Your task to perform on an android device: Open the phone app and click the voicemail tab. Image 0: 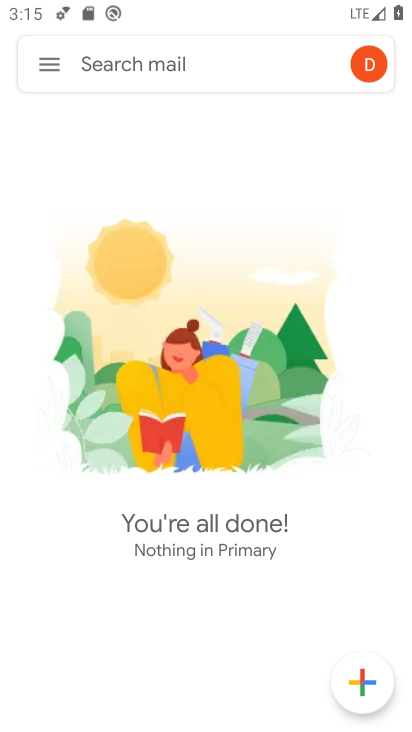
Step 0: press home button
Your task to perform on an android device: Open the phone app and click the voicemail tab. Image 1: 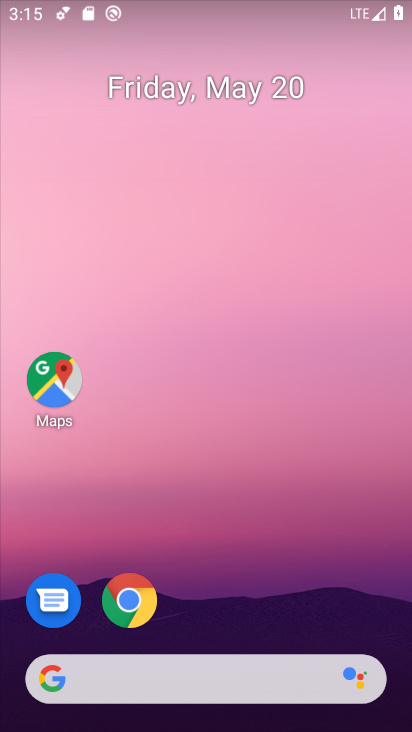
Step 1: drag from (334, 606) to (313, 320)
Your task to perform on an android device: Open the phone app and click the voicemail tab. Image 2: 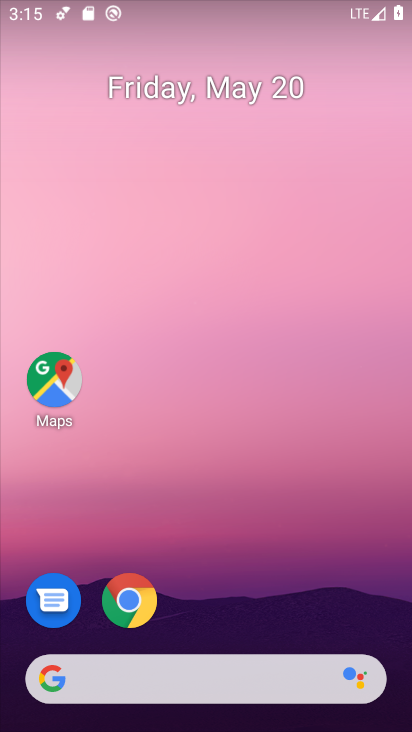
Step 2: drag from (371, 613) to (335, 213)
Your task to perform on an android device: Open the phone app and click the voicemail tab. Image 3: 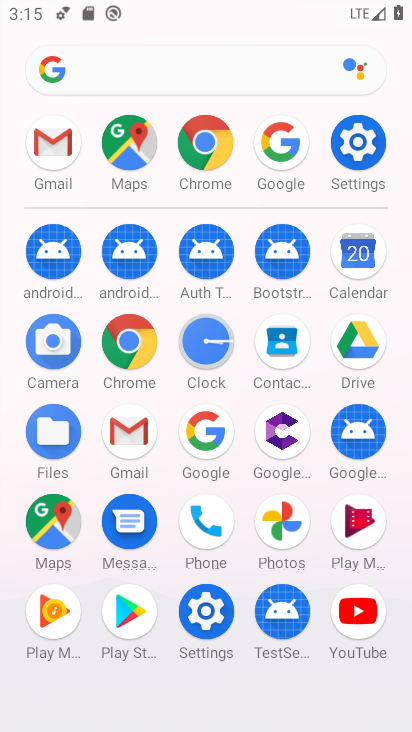
Step 3: click (371, 523)
Your task to perform on an android device: Open the phone app and click the voicemail tab. Image 4: 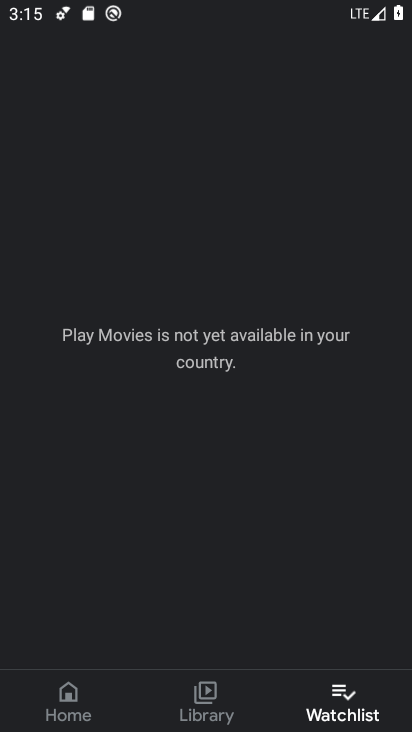
Step 4: task complete